Your task to perform on an android device: open app "PUBG MOBILE" Image 0: 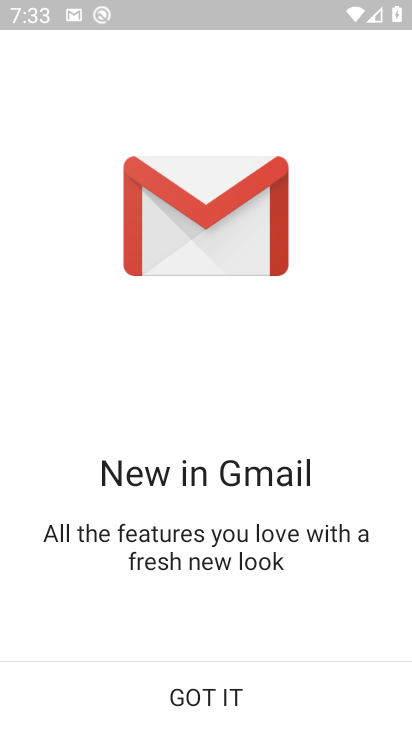
Step 0: click (251, 710)
Your task to perform on an android device: open app "PUBG MOBILE" Image 1: 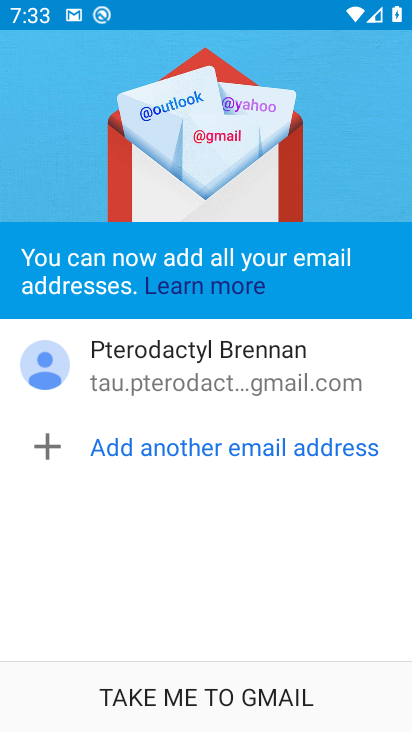
Step 1: press home button
Your task to perform on an android device: open app "PUBG MOBILE" Image 2: 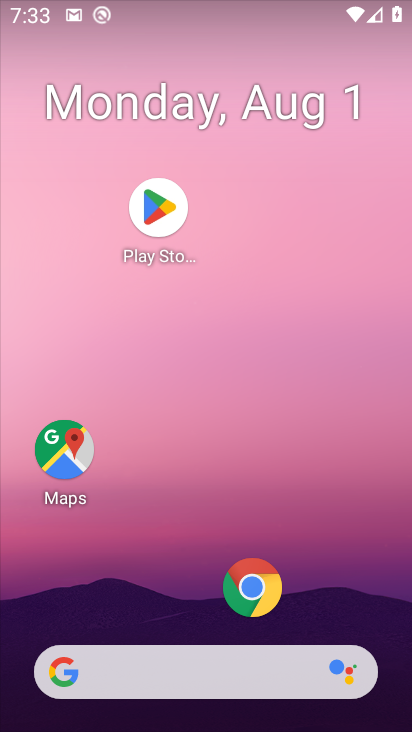
Step 2: click (180, 219)
Your task to perform on an android device: open app "PUBG MOBILE" Image 3: 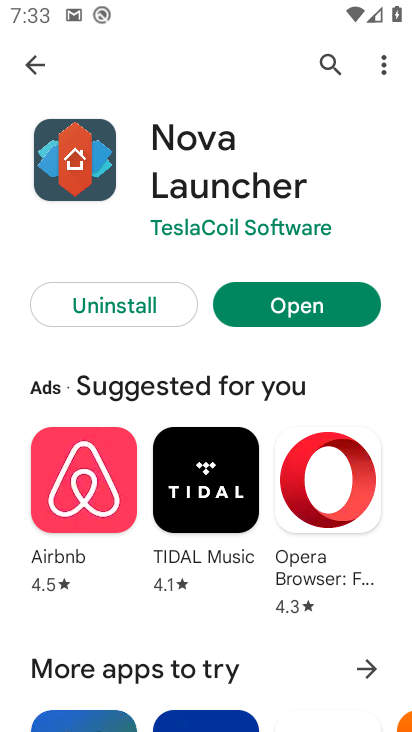
Step 3: click (312, 73)
Your task to perform on an android device: open app "PUBG MOBILE" Image 4: 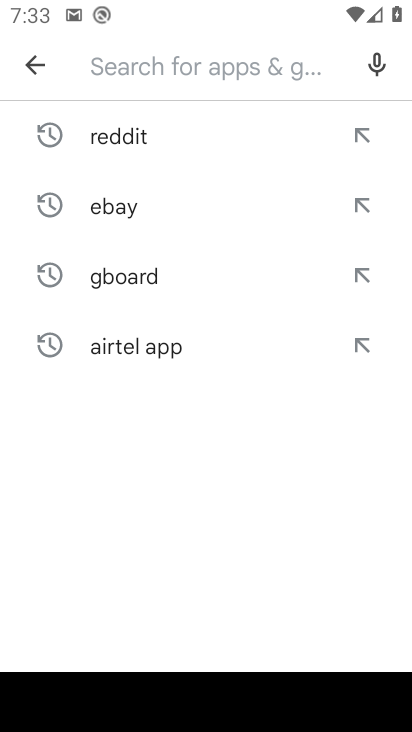
Step 4: type "pubg mobile"
Your task to perform on an android device: open app "PUBG MOBILE" Image 5: 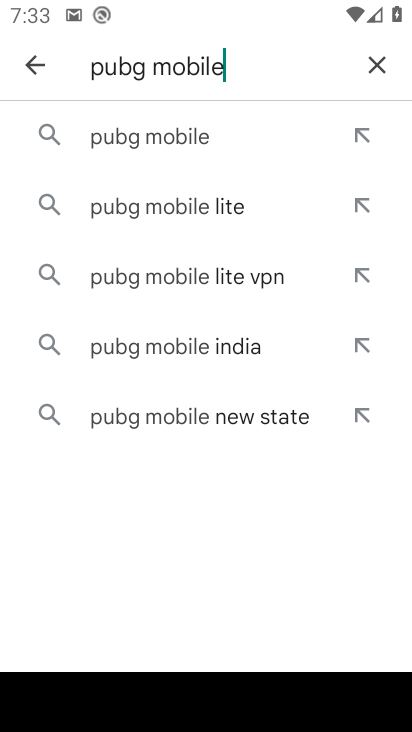
Step 5: click (163, 140)
Your task to perform on an android device: open app "PUBG MOBILE" Image 6: 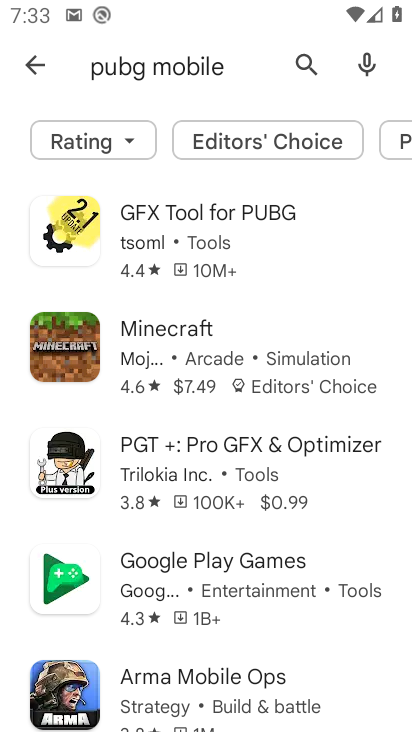
Step 6: task complete